Your task to perform on an android device: uninstall "DoorDash - Food Delivery" Image 0: 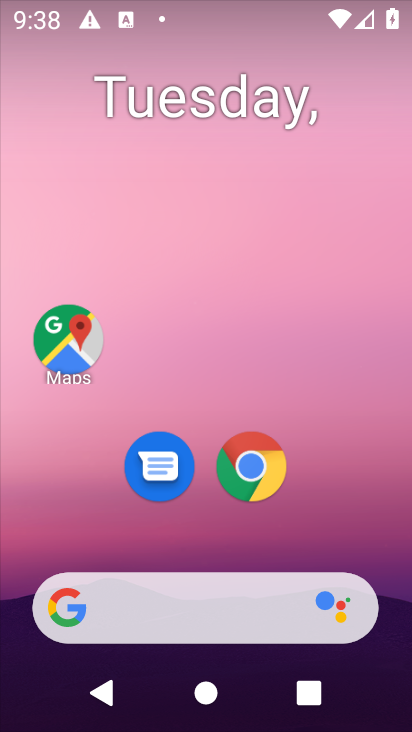
Step 0: drag from (198, 514) to (260, 14)
Your task to perform on an android device: uninstall "DoorDash - Food Delivery" Image 1: 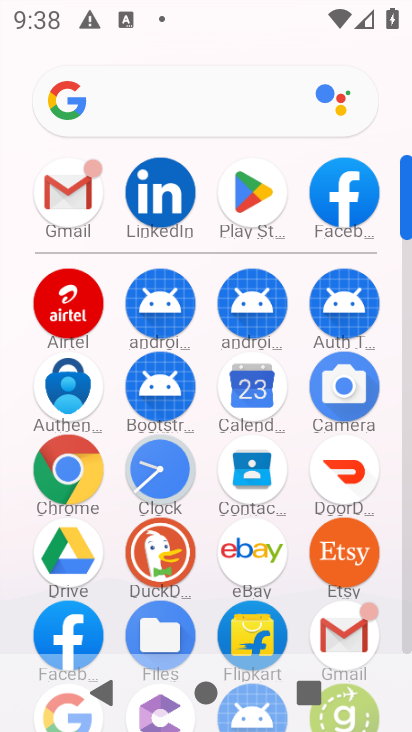
Step 1: click (247, 189)
Your task to perform on an android device: uninstall "DoorDash - Food Delivery" Image 2: 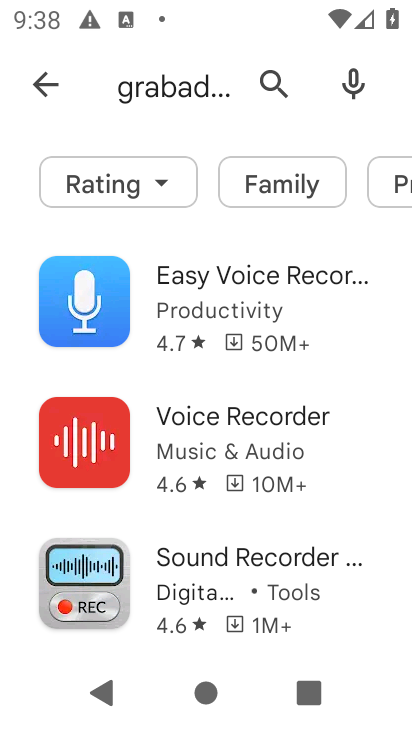
Step 2: click (273, 87)
Your task to perform on an android device: uninstall "DoorDash - Food Delivery" Image 3: 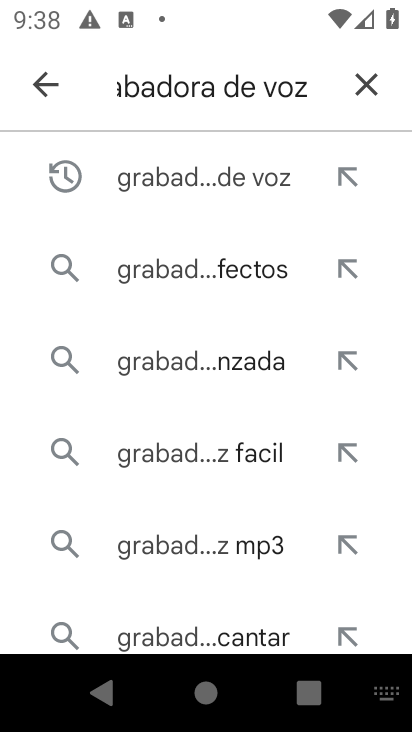
Step 3: click (369, 86)
Your task to perform on an android device: uninstall "DoorDash - Food Delivery" Image 4: 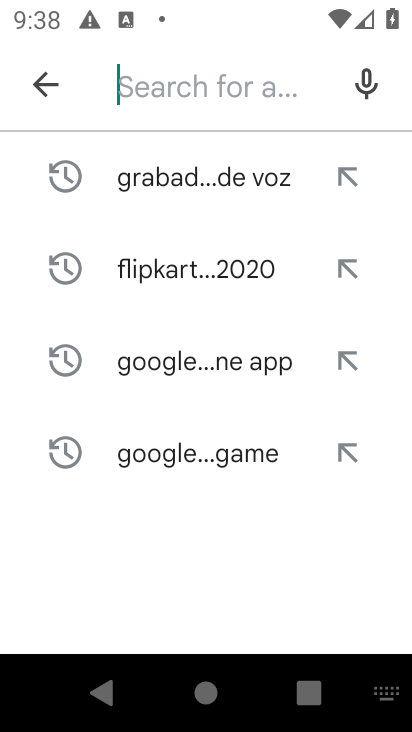
Step 4: click (147, 69)
Your task to perform on an android device: uninstall "DoorDash - Food Delivery" Image 5: 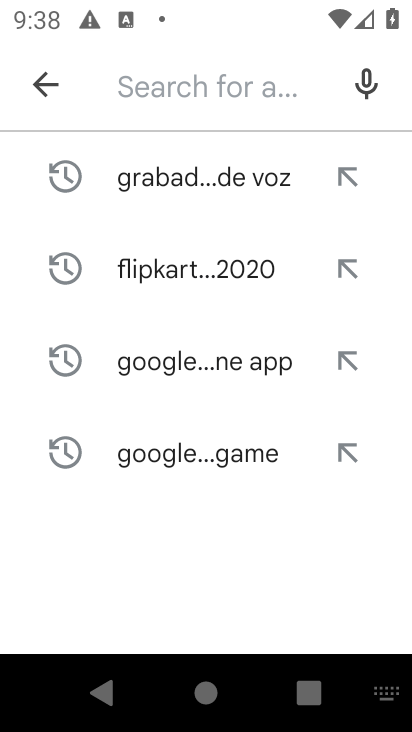
Step 5: type "DoorDash"
Your task to perform on an android device: uninstall "DoorDash - Food Delivery" Image 6: 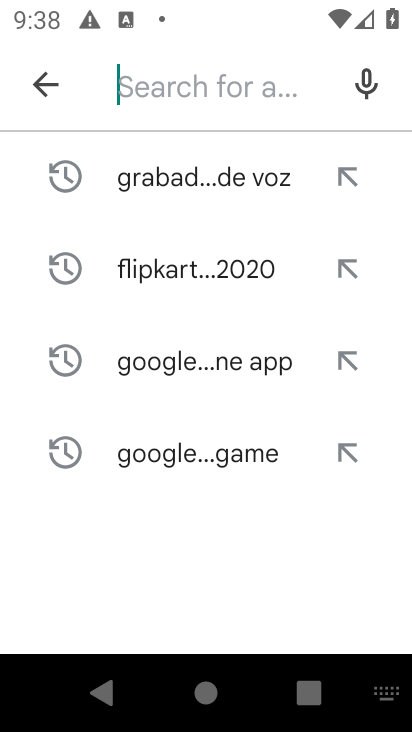
Step 6: click (137, 597)
Your task to perform on an android device: uninstall "DoorDash - Food Delivery" Image 7: 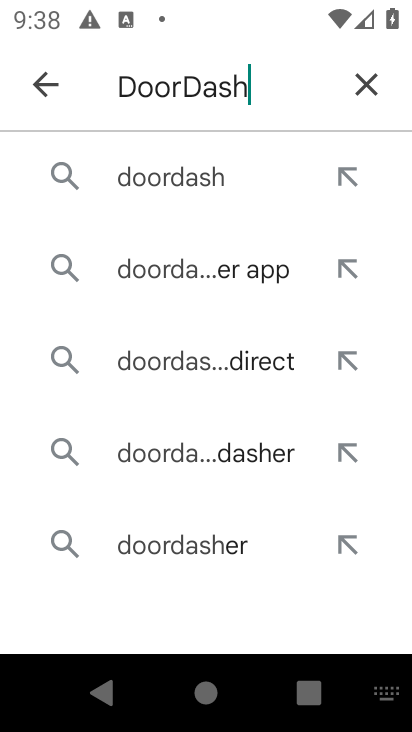
Step 7: click (153, 185)
Your task to perform on an android device: uninstall "DoorDash - Food Delivery" Image 8: 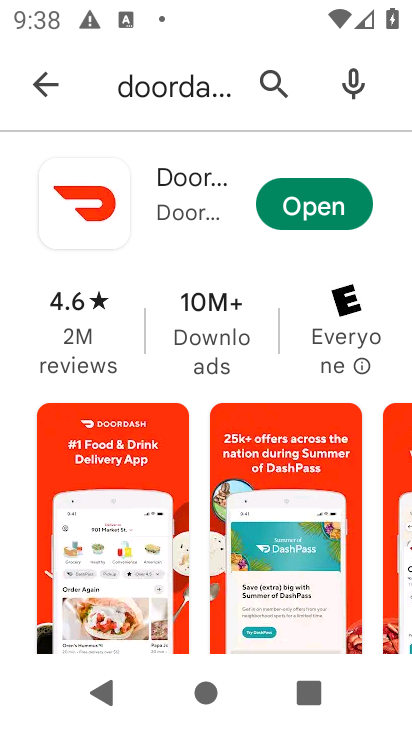
Step 8: click (140, 200)
Your task to perform on an android device: uninstall "DoorDash - Food Delivery" Image 9: 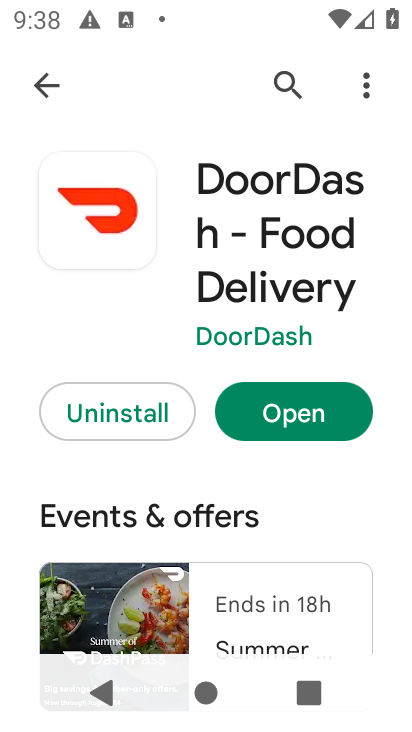
Step 9: click (99, 417)
Your task to perform on an android device: uninstall "DoorDash - Food Delivery" Image 10: 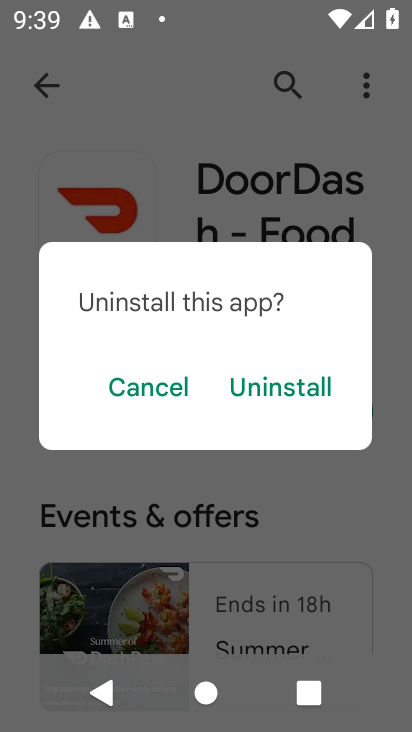
Step 10: click (308, 378)
Your task to perform on an android device: uninstall "DoorDash - Food Delivery" Image 11: 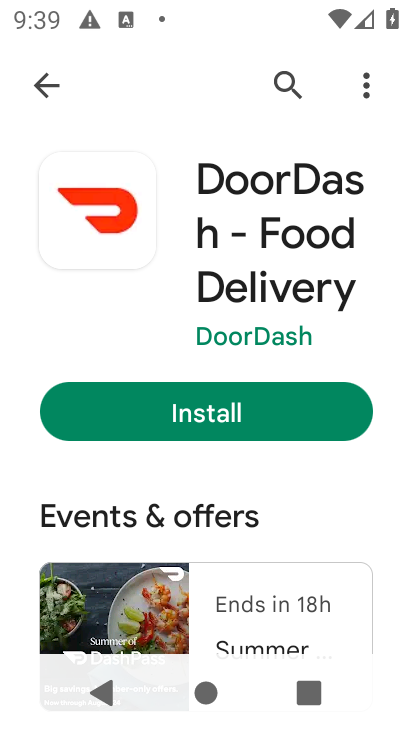
Step 11: task complete